Your task to perform on an android device: search for starred emails in the gmail app Image 0: 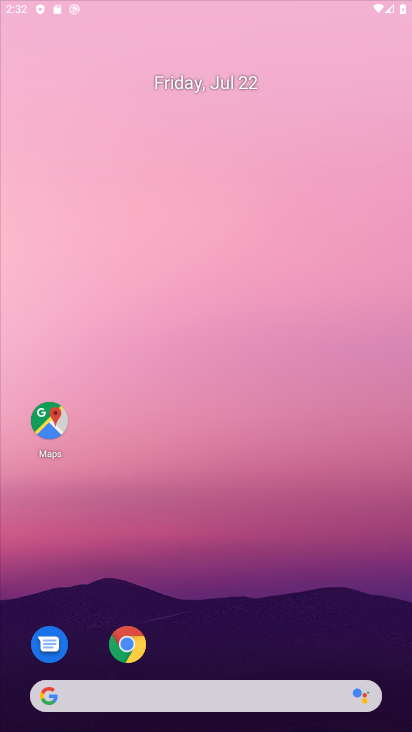
Step 0: press home button
Your task to perform on an android device: search for starred emails in the gmail app Image 1: 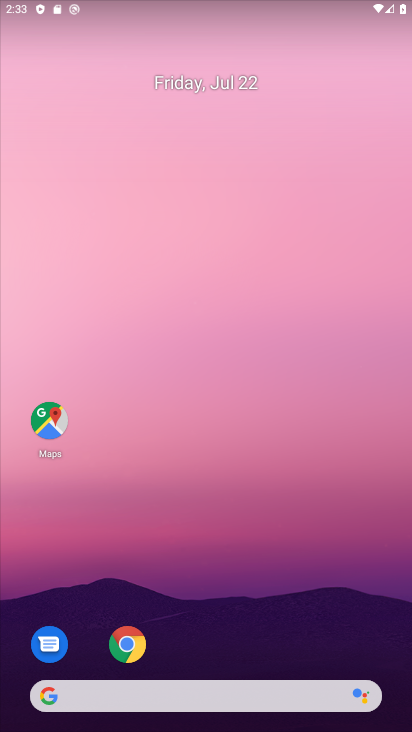
Step 1: drag from (217, 664) to (279, 166)
Your task to perform on an android device: search for starred emails in the gmail app Image 2: 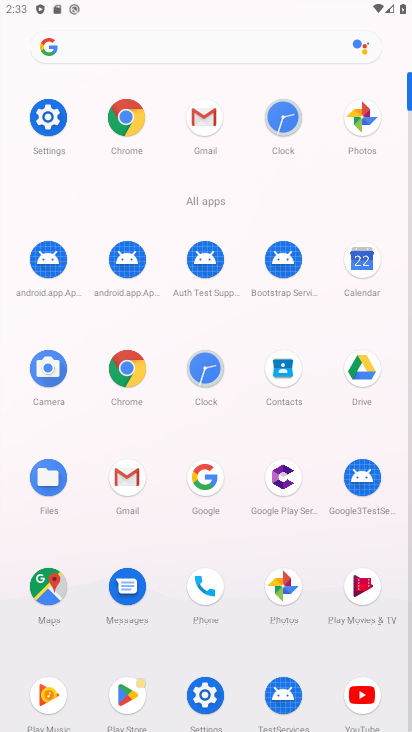
Step 2: click (206, 125)
Your task to perform on an android device: search for starred emails in the gmail app Image 3: 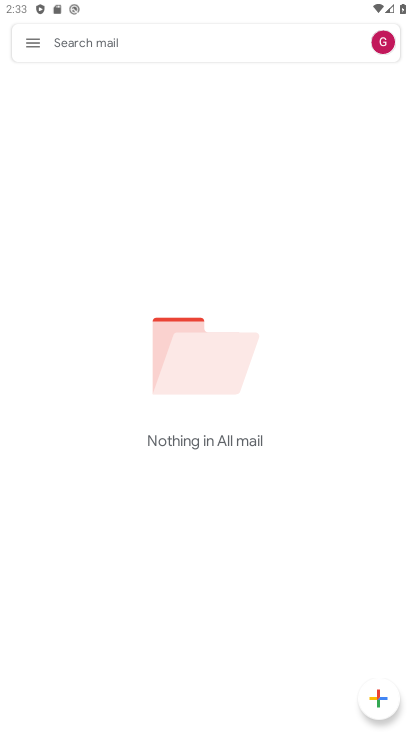
Step 3: click (39, 43)
Your task to perform on an android device: search for starred emails in the gmail app Image 4: 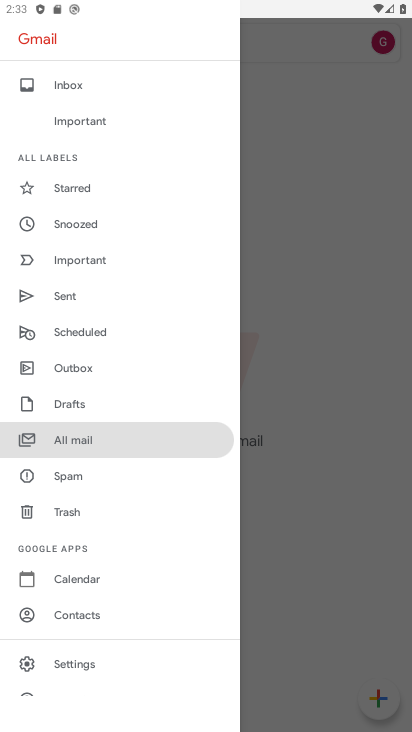
Step 4: click (72, 196)
Your task to perform on an android device: search for starred emails in the gmail app Image 5: 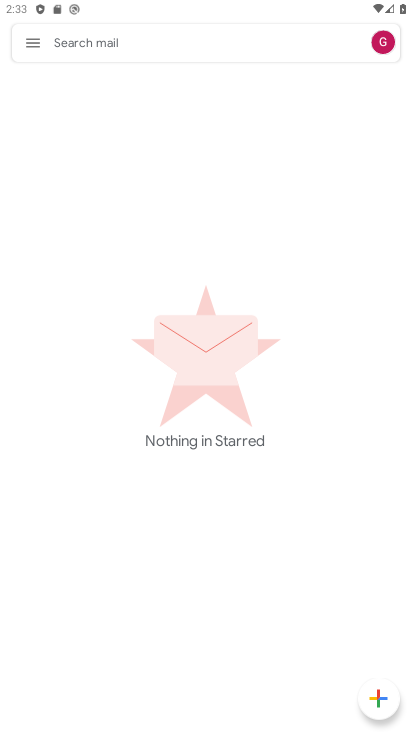
Step 5: task complete